Your task to perform on an android device: Open Chrome and go to the settings page Image 0: 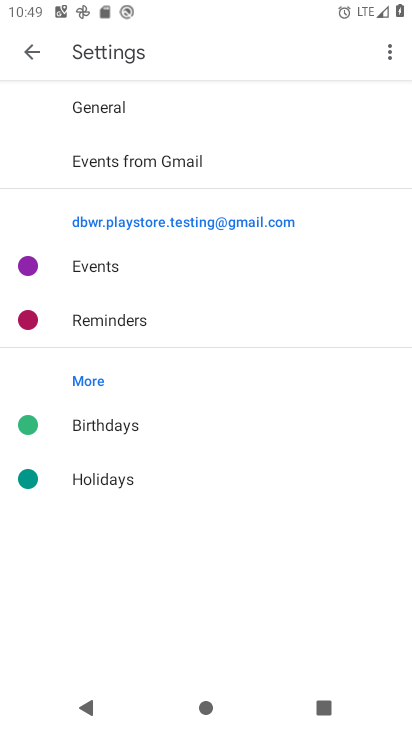
Step 0: press home button
Your task to perform on an android device: Open Chrome and go to the settings page Image 1: 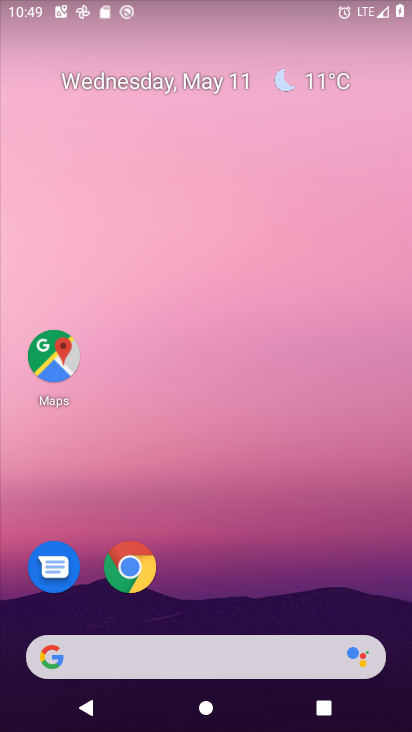
Step 1: drag from (237, 552) to (189, 137)
Your task to perform on an android device: Open Chrome and go to the settings page Image 2: 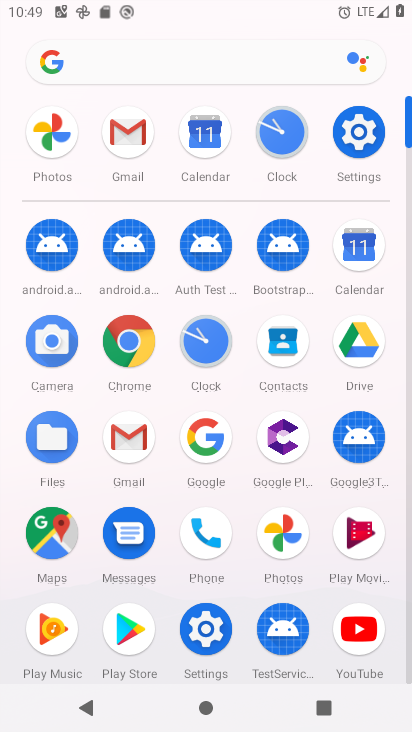
Step 2: click (137, 344)
Your task to perform on an android device: Open Chrome and go to the settings page Image 3: 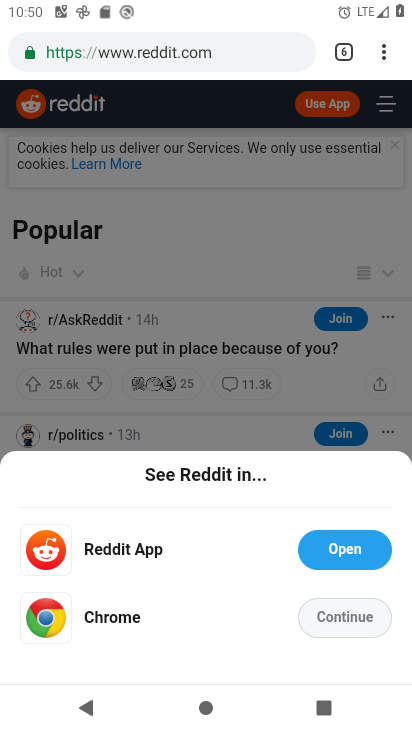
Step 3: click (392, 52)
Your task to perform on an android device: Open Chrome and go to the settings page Image 4: 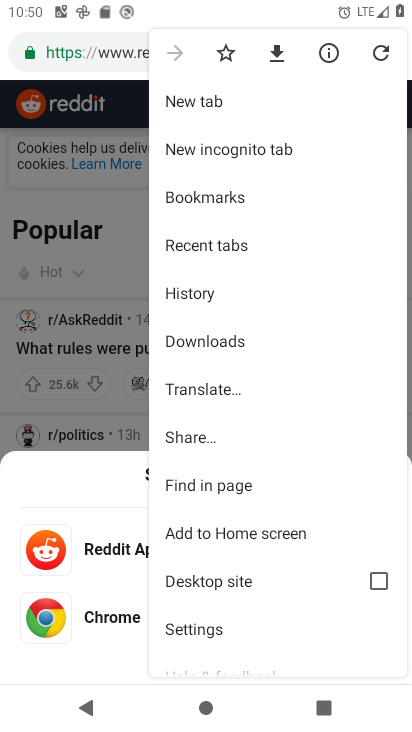
Step 4: click (199, 618)
Your task to perform on an android device: Open Chrome and go to the settings page Image 5: 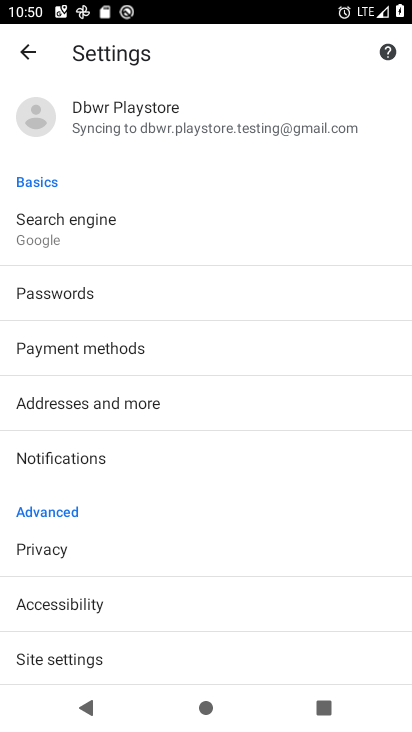
Step 5: task complete